Your task to perform on an android device: check storage Image 0: 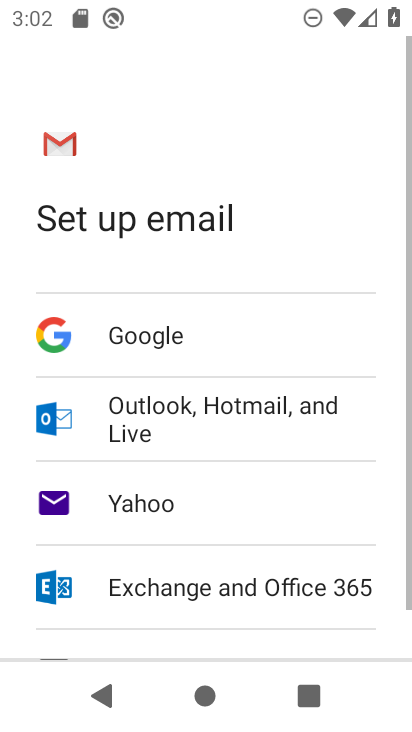
Step 0: press home button
Your task to perform on an android device: check storage Image 1: 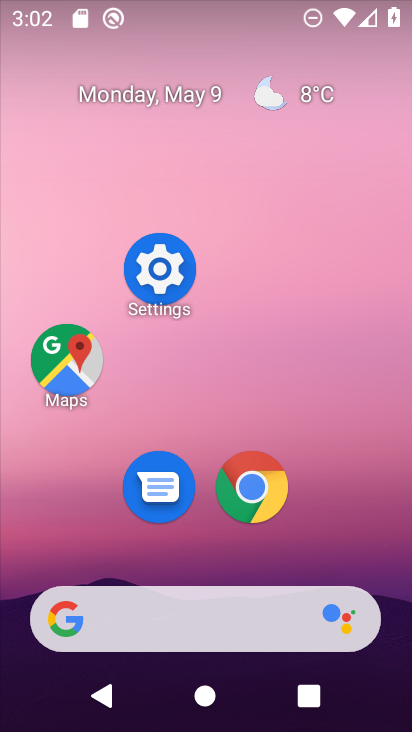
Step 1: drag from (340, 514) to (293, 471)
Your task to perform on an android device: check storage Image 2: 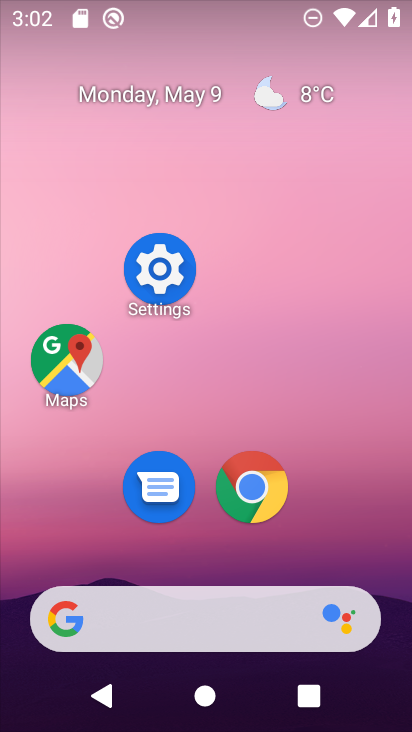
Step 2: click (163, 271)
Your task to perform on an android device: check storage Image 3: 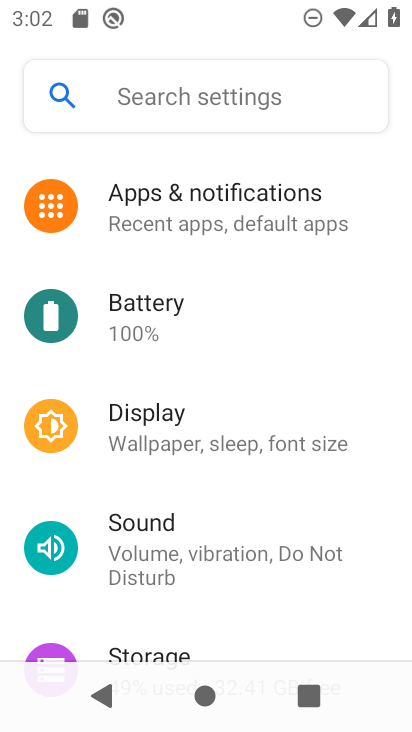
Step 3: drag from (261, 599) to (242, 388)
Your task to perform on an android device: check storage Image 4: 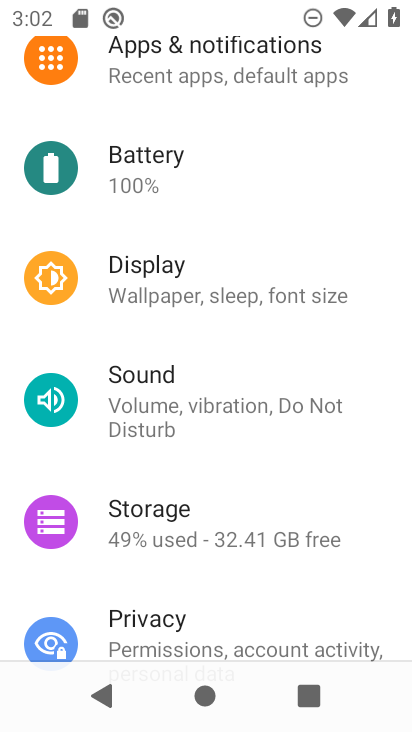
Step 4: click (177, 507)
Your task to perform on an android device: check storage Image 5: 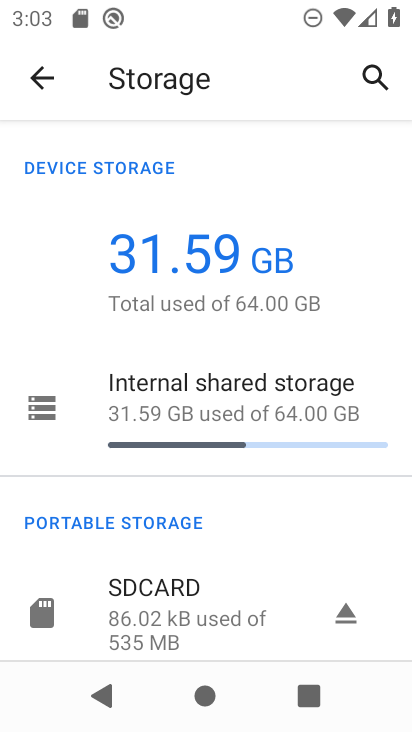
Step 5: task complete